Your task to perform on an android device: star an email in the gmail app Image 0: 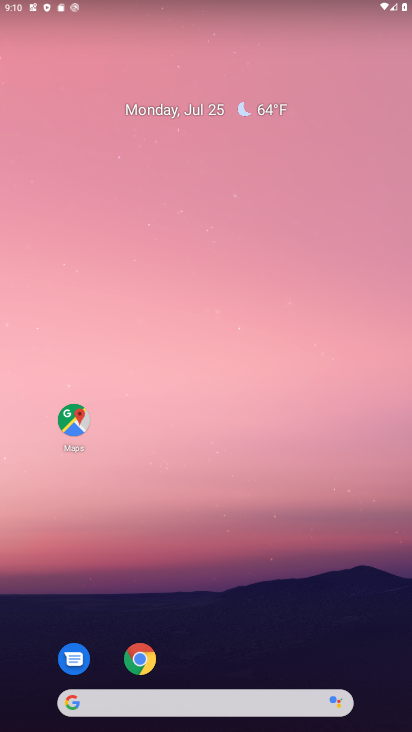
Step 0: press home button
Your task to perform on an android device: star an email in the gmail app Image 1: 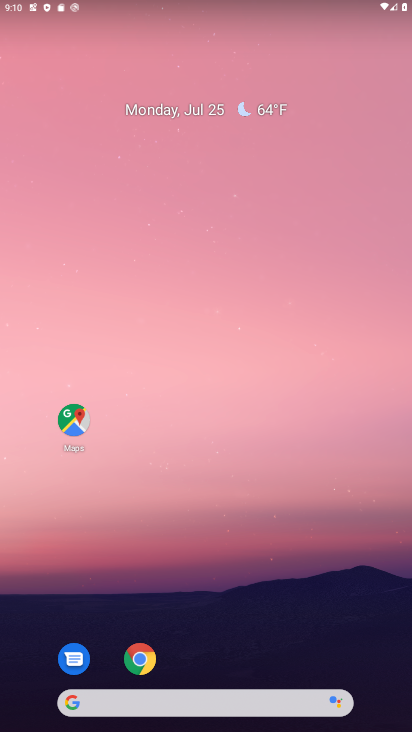
Step 1: drag from (286, 641) to (316, 187)
Your task to perform on an android device: star an email in the gmail app Image 2: 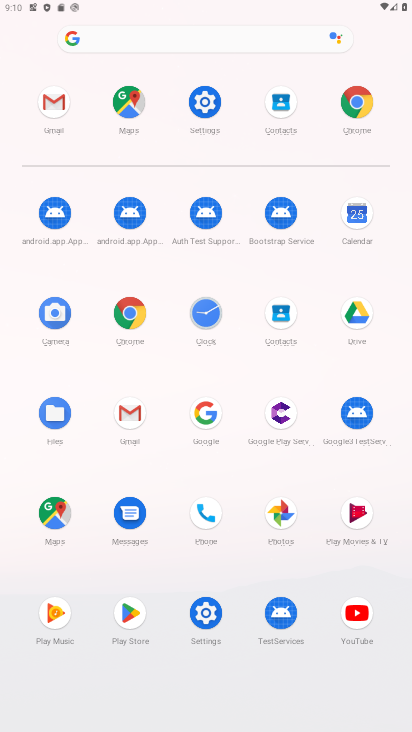
Step 2: click (132, 410)
Your task to perform on an android device: star an email in the gmail app Image 3: 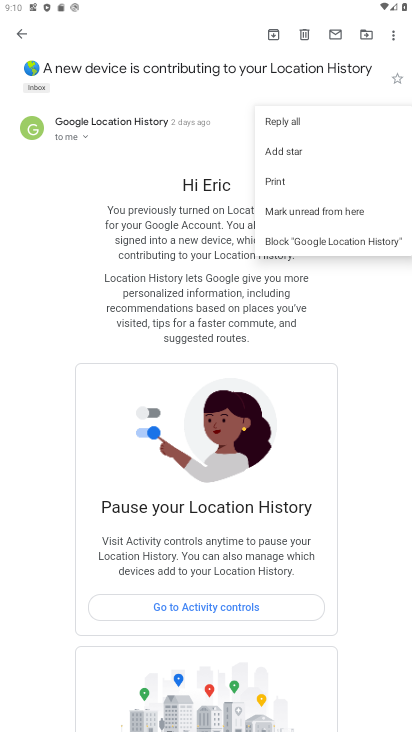
Step 3: press back button
Your task to perform on an android device: star an email in the gmail app Image 4: 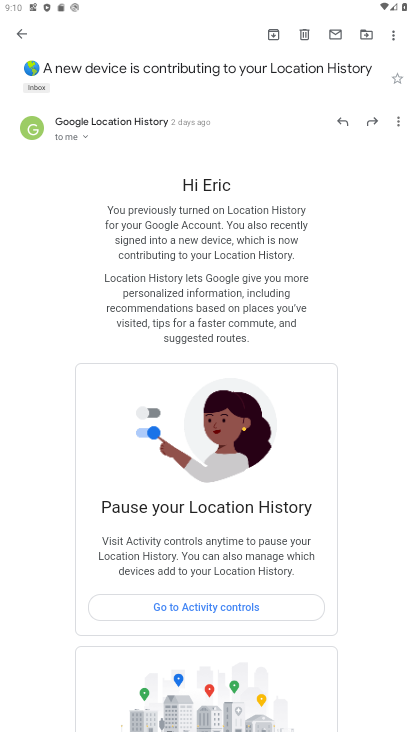
Step 4: press back button
Your task to perform on an android device: star an email in the gmail app Image 5: 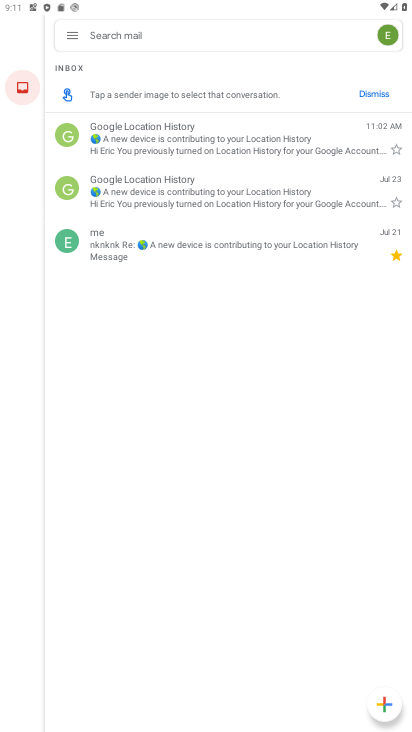
Step 5: click (394, 207)
Your task to perform on an android device: star an email in the gmail app Image 6: 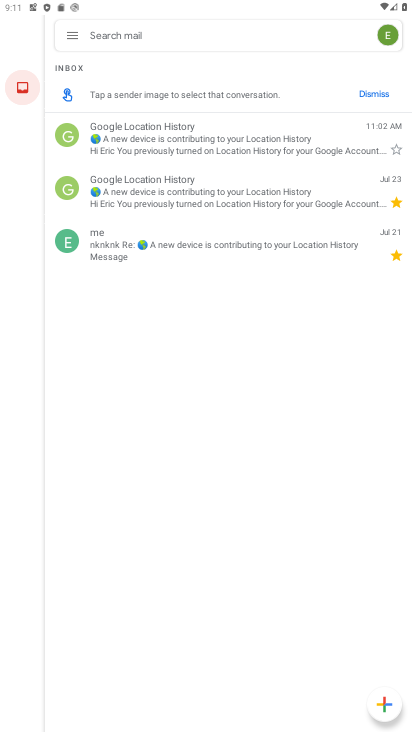
Step 6: task complete